Your task to perform on an android device: move a message to another label in the gmail app Image 0: 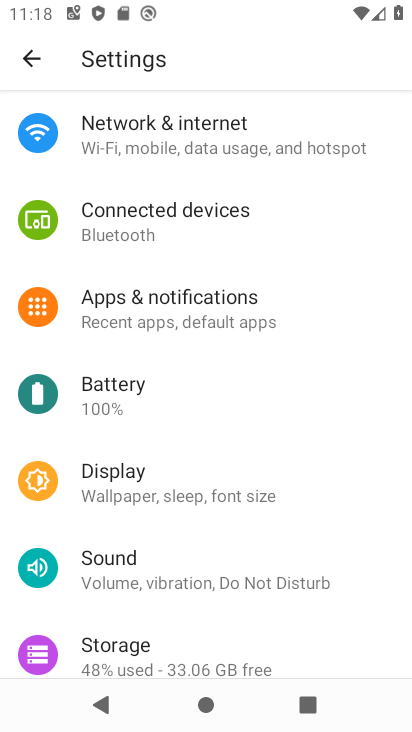
Step 0: press home button
Your task to perform on an android device: move a message to another label in the gmail app Image 1: 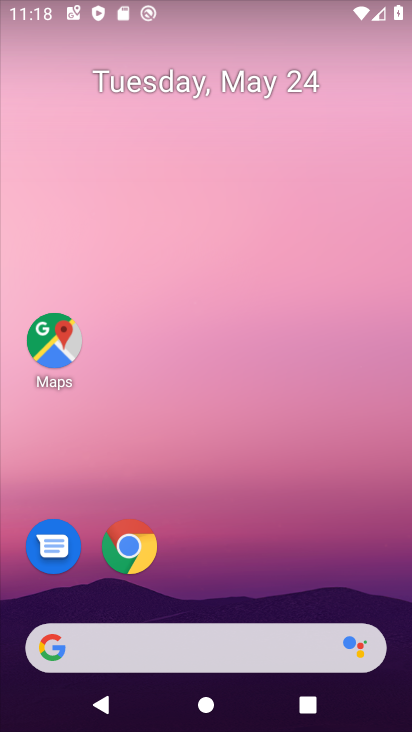
Step 1: drag from (231, 590) to (160, 54)
Your task to perform on an android device: move a message to another label in the gmail app Image 2: 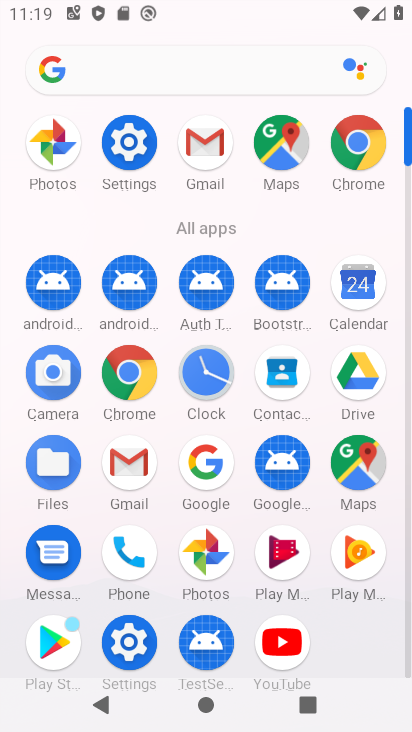
Step 2: click (204, 139)
Your task to perform on an android device: move a message to another label in the gmail app Image 3: 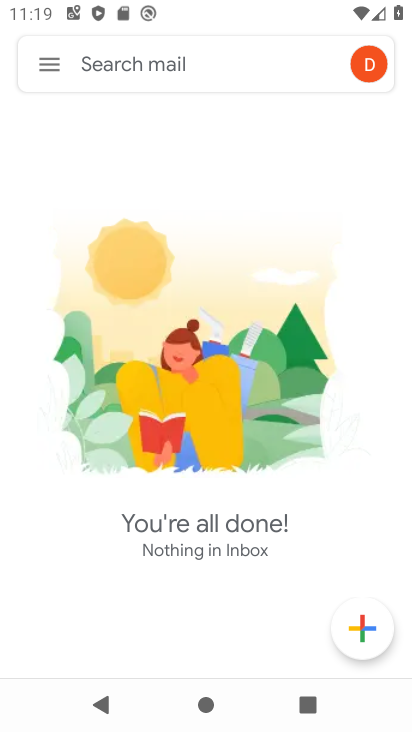
Step 3: click (52, 65)
Your task to perform on an android device: move a message to another label in the gmail app Image 4: 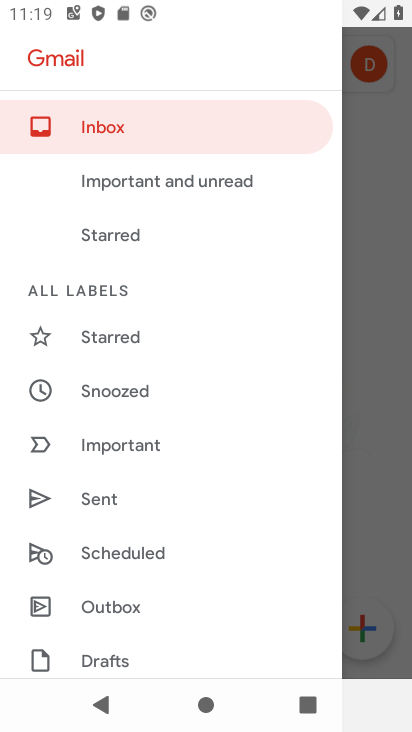
Step 4: drag from (182, 624) to (149, 233)
Your task to perform on an android device: move a message to another label in the gmail app Image 5: 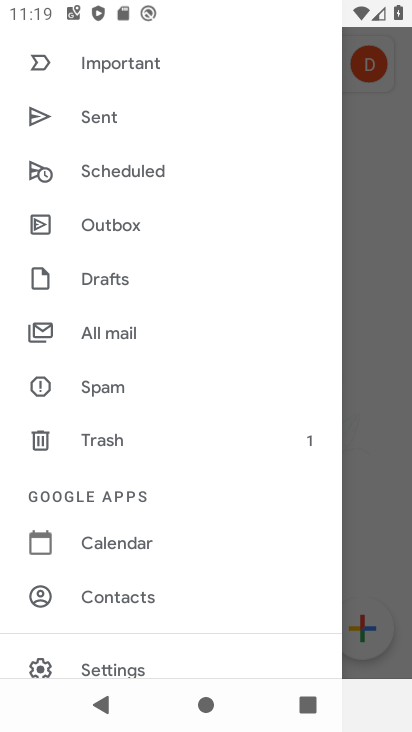
Step 5: click (157, 343)
Your task to perform on an android device: move a message to another label in the gmail app Image 6: 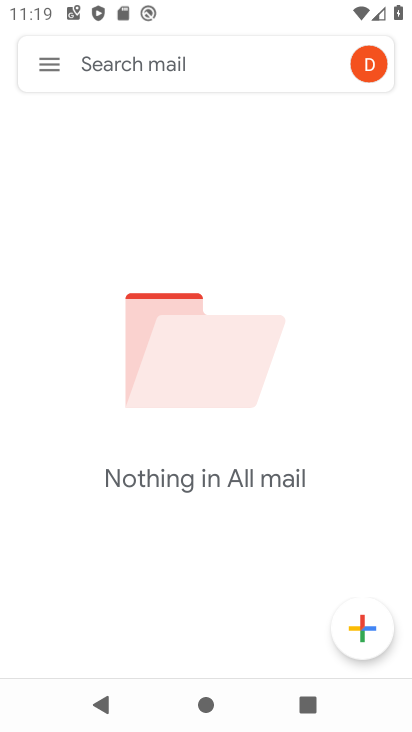
Step 6: task complete